Your task to perform on an android device: open a new tab in the chrome app Image 0: 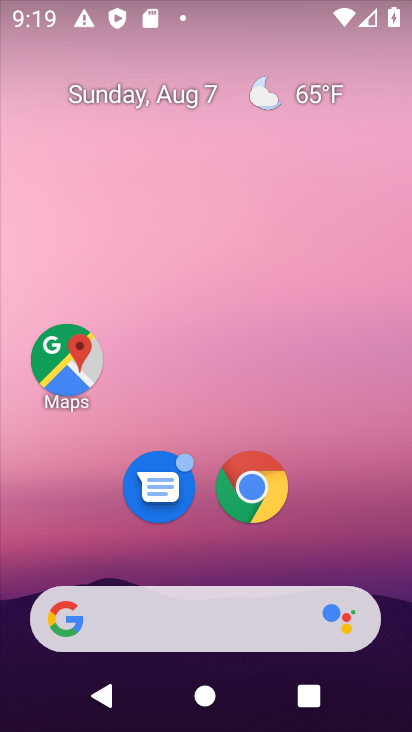
Step 0: click (254, 481)
Your task to perform on an android device: open a new tab in the chrome app Image 1: 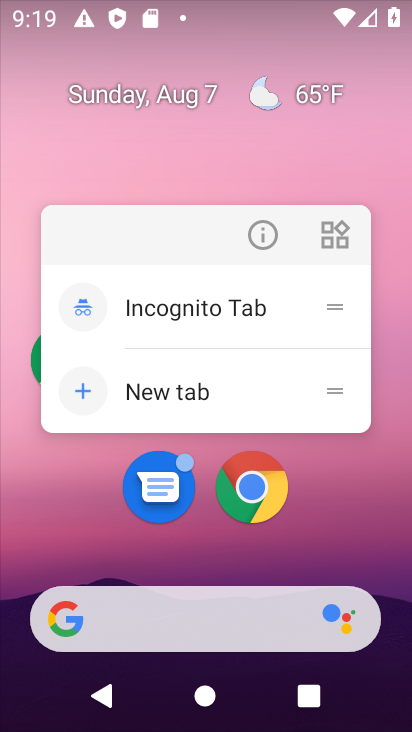
Step 1: click (253, 483)
Your task to perform on an android device: open a new tab in the chrome app Image 2: 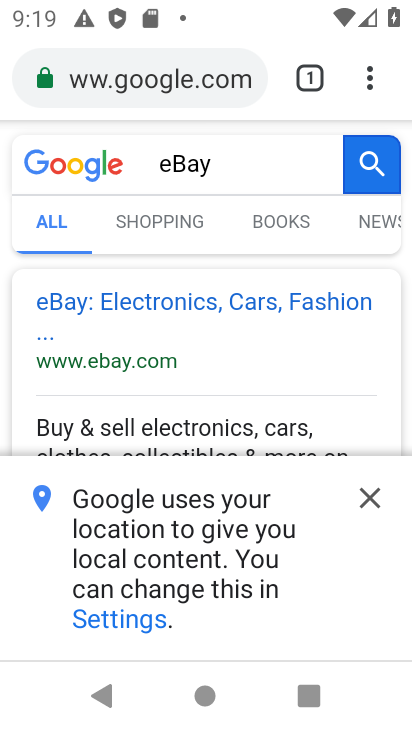
Step 2: click (364, 77)
Your task to perform on an android device: open a new tab in the chrome app Image 3: 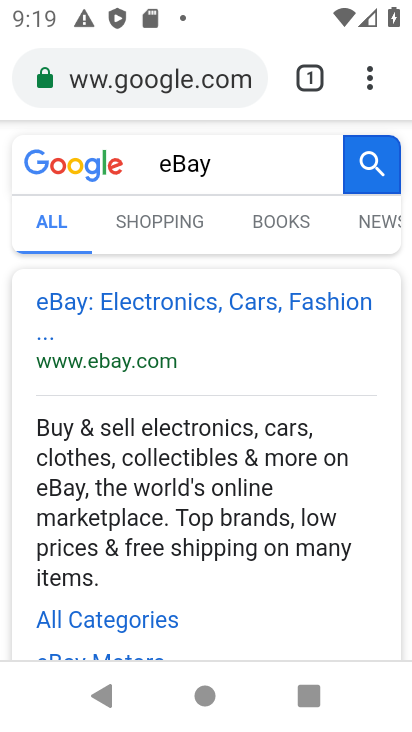
Step 3: click (365, 76)
Your task to perform on an android device: open a new tab in the chrome app Image 4: 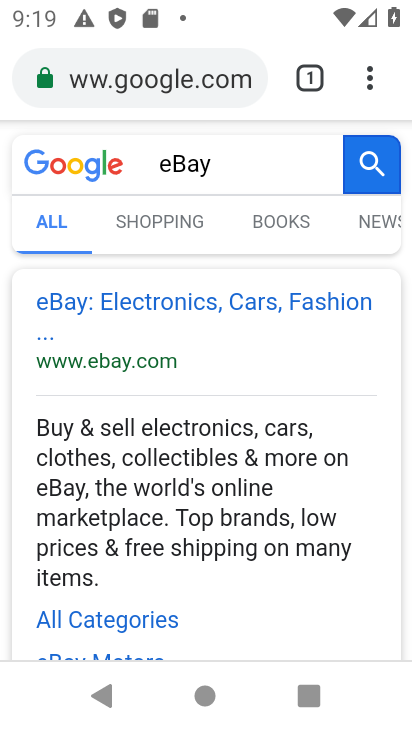
Step 4: click (365, 76)
Your task to perform on an android device: open a new tab in the chrome app Image 5: 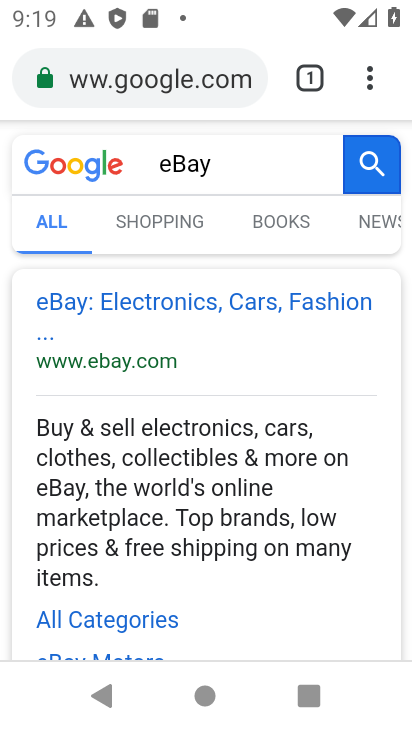
Step 5: click (365, 76)
Your task to perform on an android device: open a new tab in the chrome app Image 6: 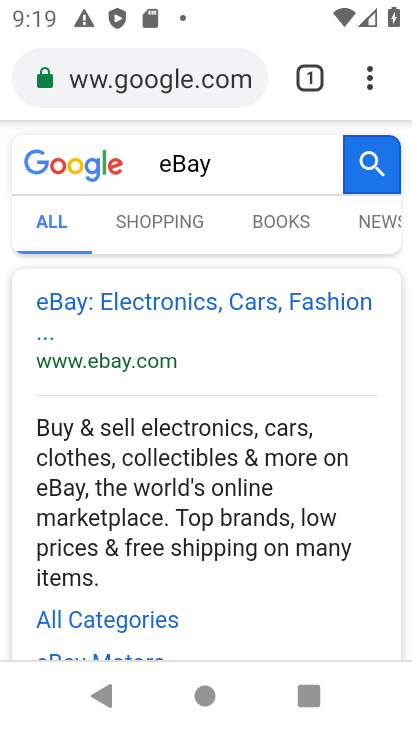
Step 6: click (365, 76)
Your task to perform on an android device: open a new tab in the chrome app Image 7: 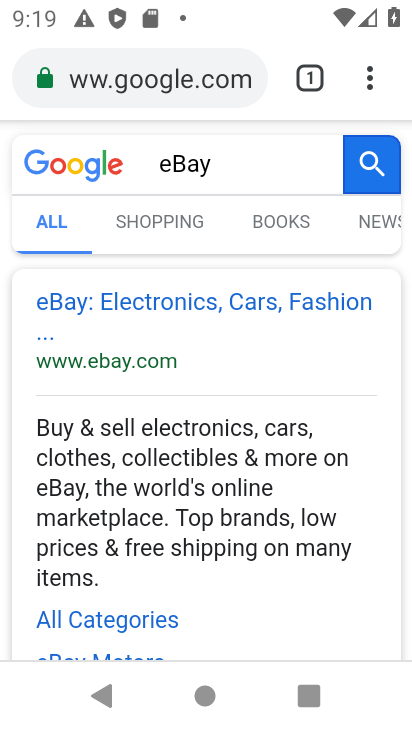
Step 7: click (365, 78)
Your task to perform on an android device: open a new tab in the chrome app Image 8: 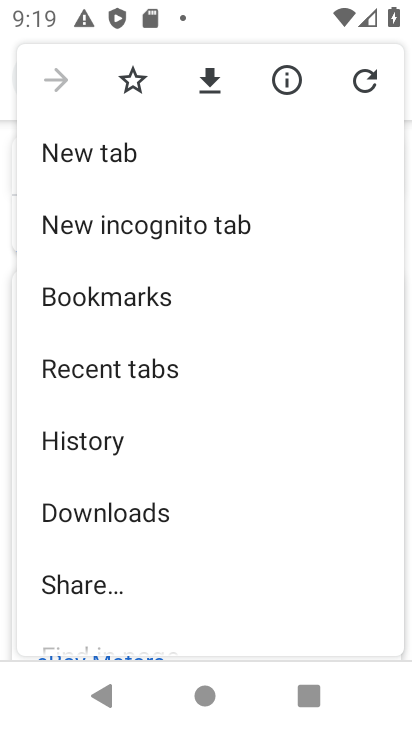
Step 8: click (111, 152)
Your task to perform on an android device: open a new tab in the chrome app Image 9: 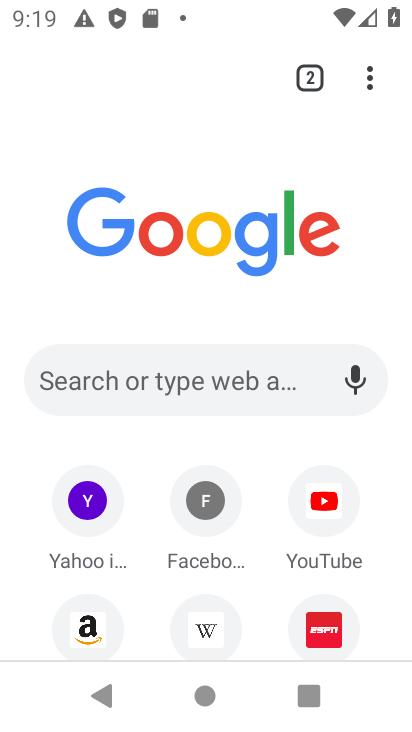
Step 9: task complete